Your task to perform on an android device: remove spam from my inbox in the gmail app Image 0: 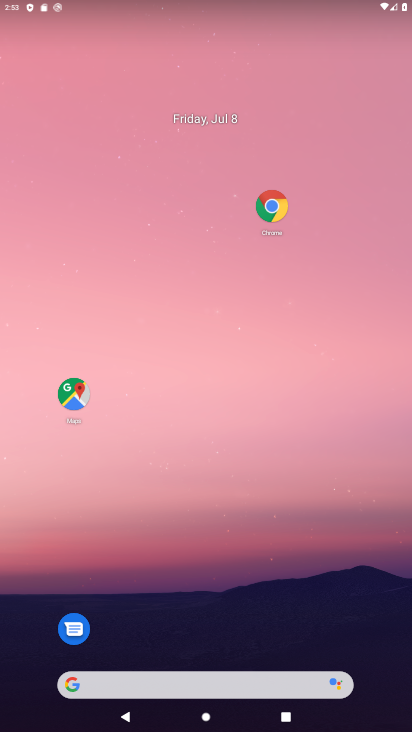
Step 0: drag from (188, 581) to (255, 99)
Your task to perform on an android device: remove spam from my inbox in the gmail app Image 1: 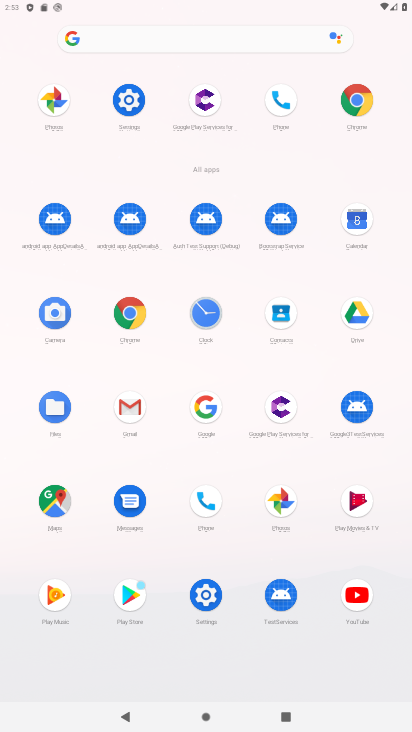
Step 1: drag from (173, 546) to (170, 295)
Your task to perform on an android device: remove spam from my inbox in the gmail app Image 2: 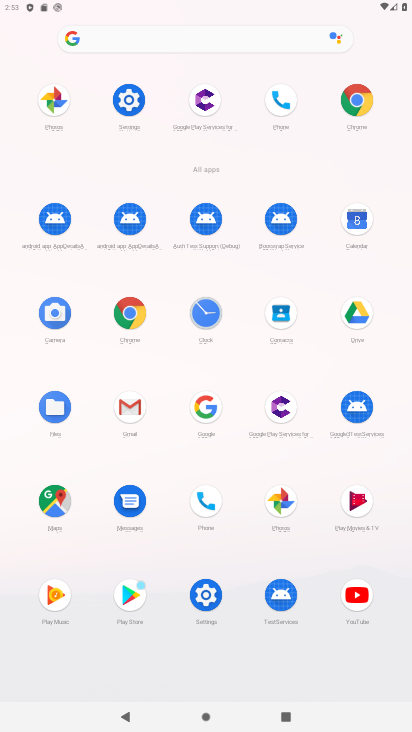
Step 2: click (136, 407)
Your task to perform on an android device: remove spam from my inbox in the gmail app Image 3: 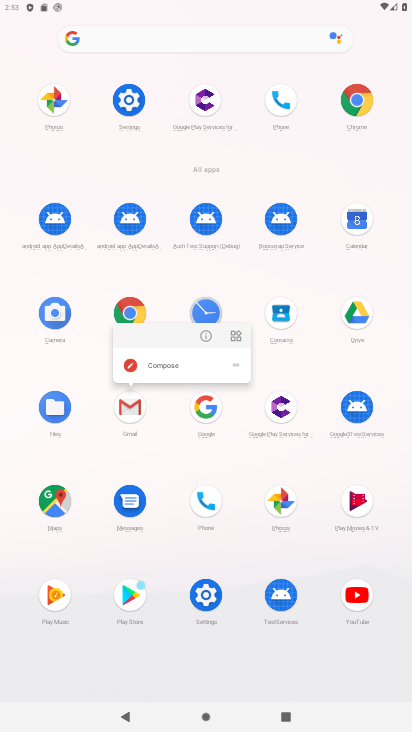
Step 3: click (209, 330)
Your task to perform on an android device: remove spam from my inbox in the gmail app Image 4: 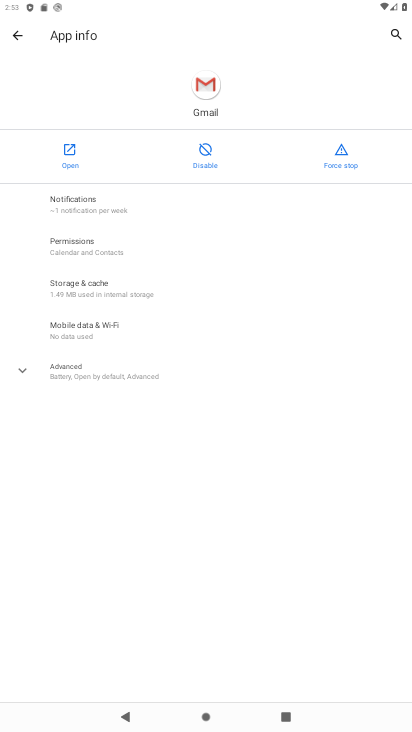
Step 4: click (65, 164)
Your task to perform on an android device: remove spam from my inbox in the gmail app Image 5: 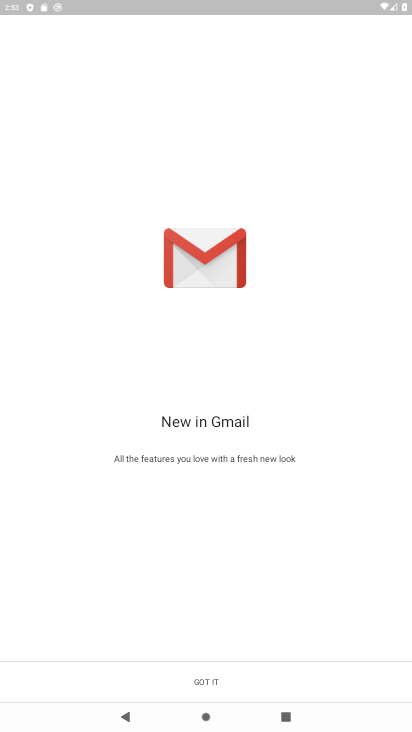
Step 5: click (206, 681)
Your task to perform on an android device: remove spam from my inbox in the gmail app Image 6: 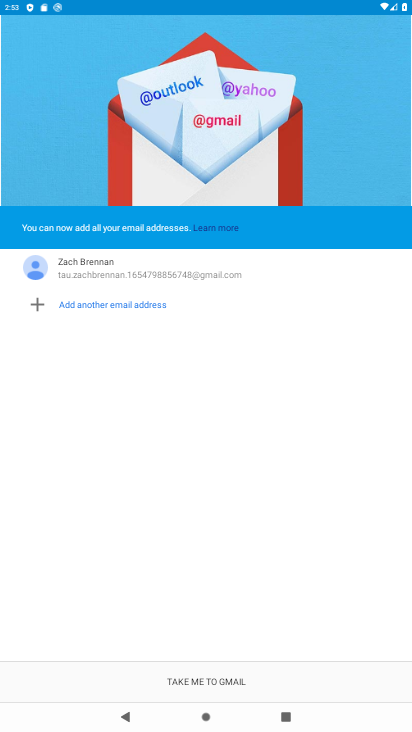
Step 6: click (240, 685)
Your task to perform on an android device: remove spam from my inbox in the gmail app Image 7: 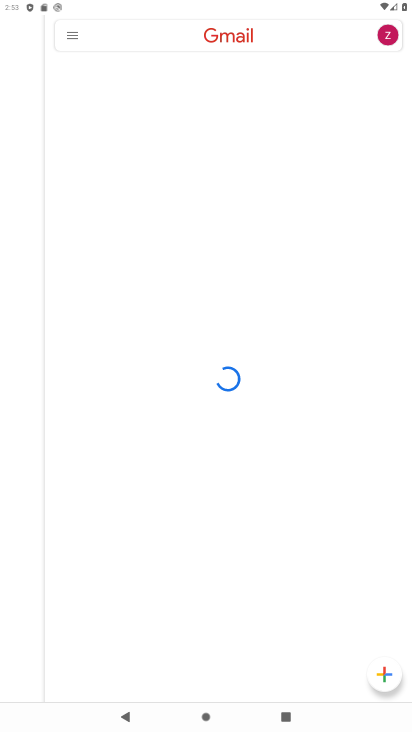
Step 7: click (22, 39)
Your task to perform on an android device: remove spam from my inbox in the gmail app Image 8: 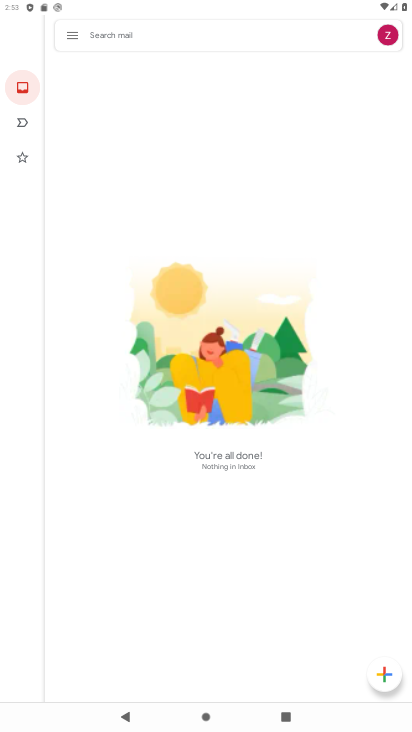
Step 8: click (66, 38)
Your task to perform on an android device: remove spam from my inbox in the gmail app Image 9: 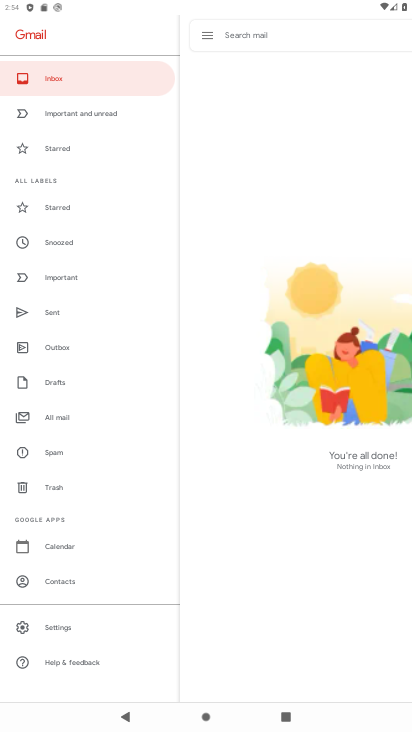
Step 9: click (61, 452)
Your task to perform on an android device: remove spam from my inbox in the gmail app Image 10: 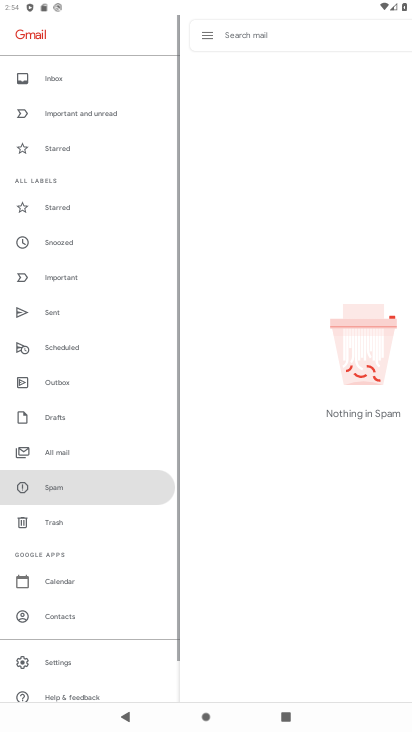
Step 10: task complete